Your task to perform on an android device: Search for Italian restaurants on Maps Image 0: 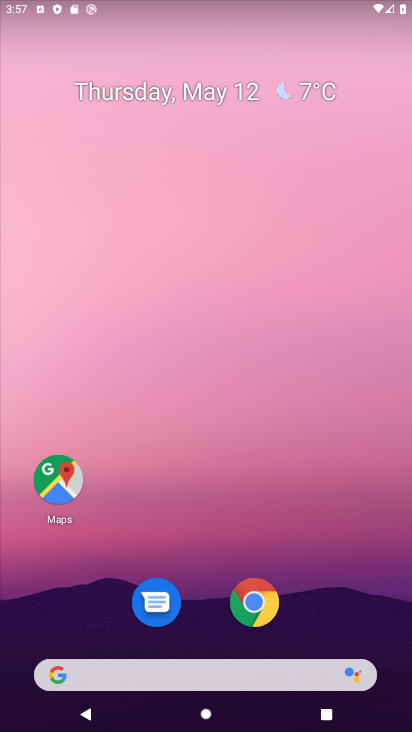
Step 0: click (51, 481)
Your task to perform on an android device: Search for Italian restaurants on Maps Image 1: 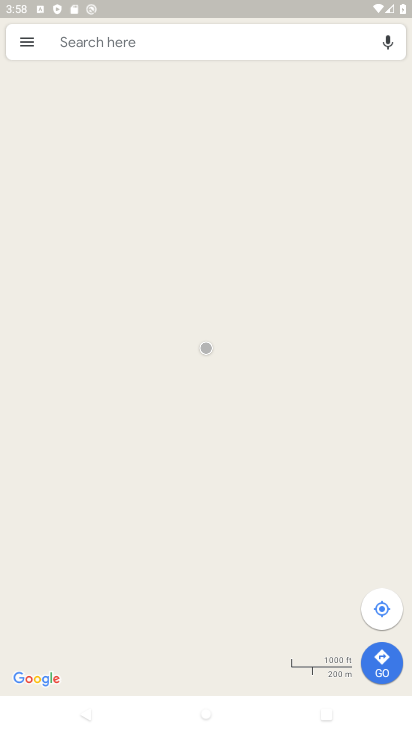
Step 1: click (207, 37)
Your task to perform on an android device: Search for Italian restaurants on Maps Image 2: 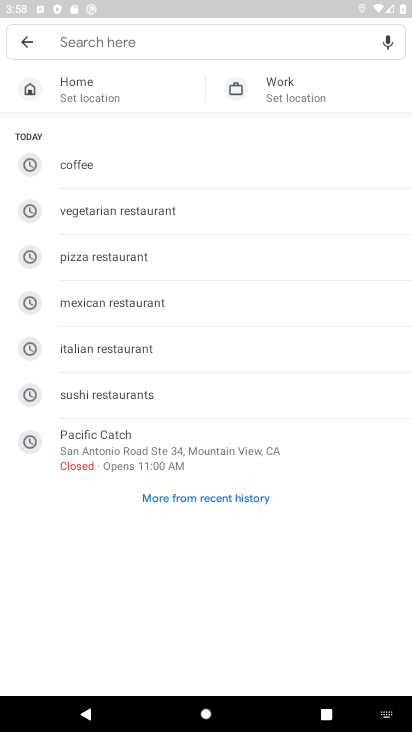
Step 2: click (119, 345)
Your task to perform on an android device: Search for Italian restaurants on Maps Image 3: 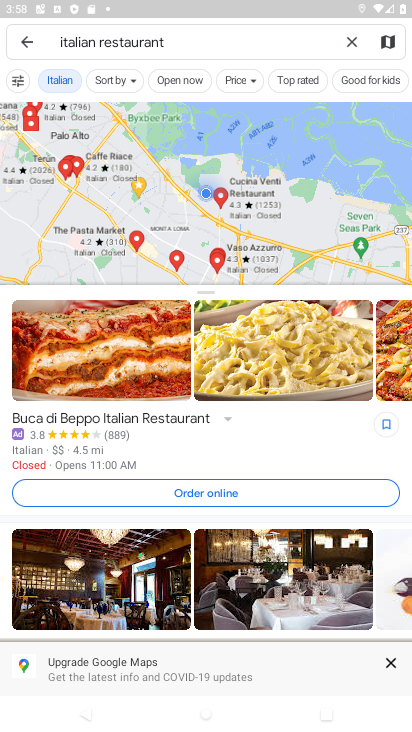
Step 3: task complete